Your task to perform on an android device: remove spam from my inbox in the gmail app Image 0: 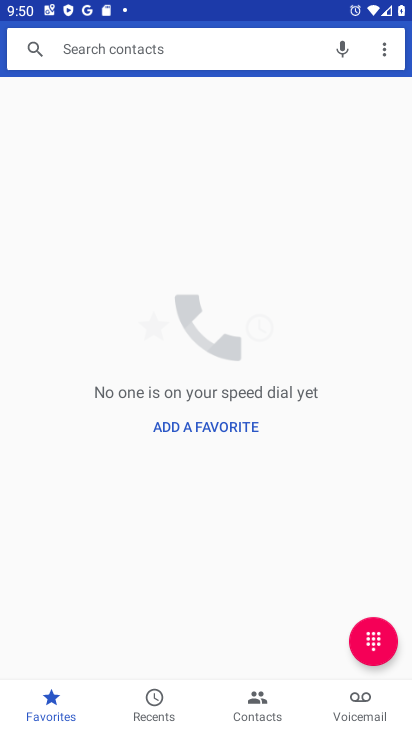
Step 0: press home button
Your task to perform on an android device: remove spam from my inbox in the gmail app Image 1: 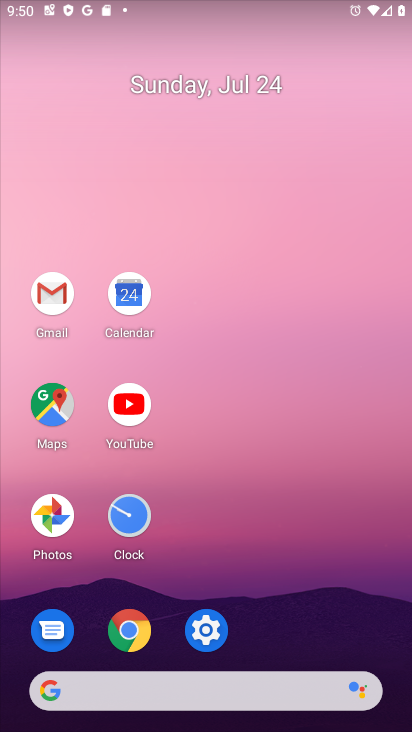
Step 1: click (46, 294)
Your task to perform on an android device: remove spam from my inbox in the gmail app Image 2: 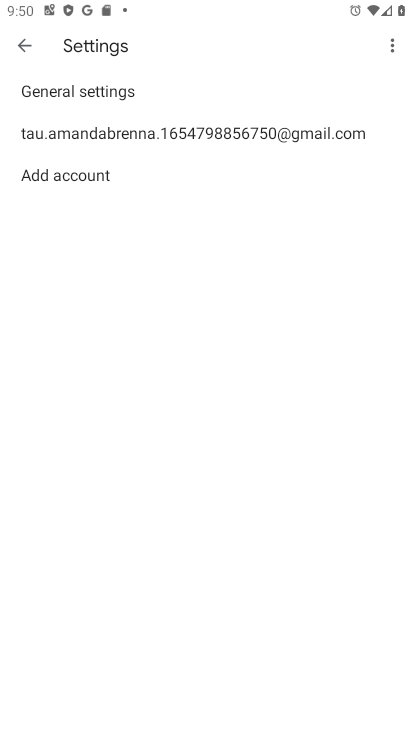
Step 2: click (22, 44)
Your task to perform on an android device: remove spam from my inbox in the gmail app Image 3: 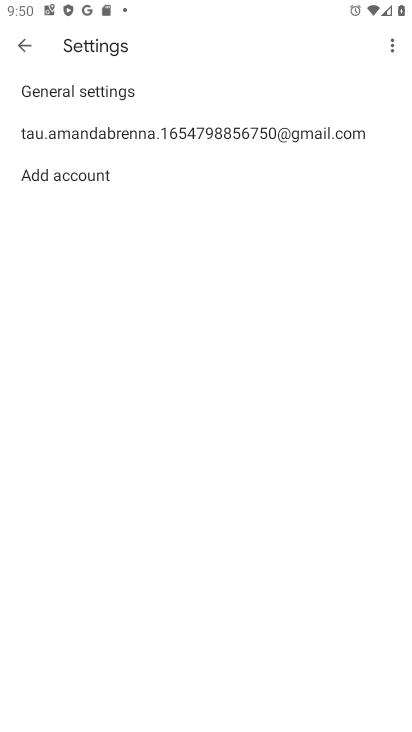
Step 3: click (22, 44)
Your task to perform on an android device: remove spam from my inbox in the gmail app Image 4: 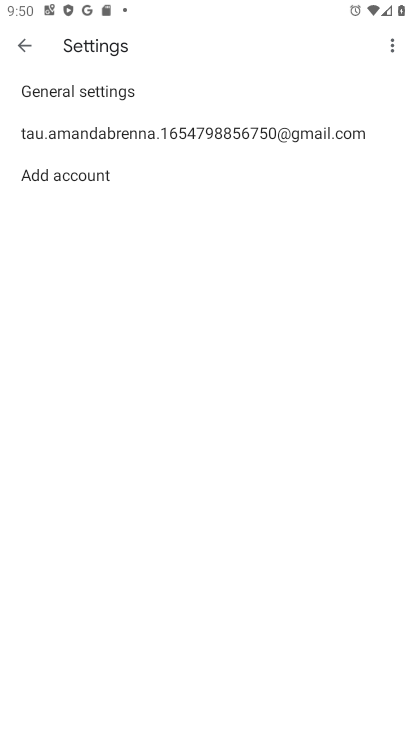
Step 4: click (23, 47)
Your task to perform on an android device: remove spam from my inbox in the gmail app Image 5: 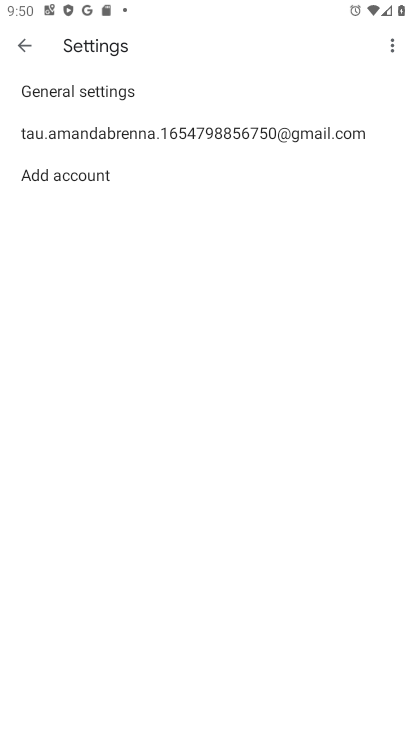
Step 5: click (23, 47)
Your task to perform on an android device: remove spam from my inbox in the gmail app Image 6: 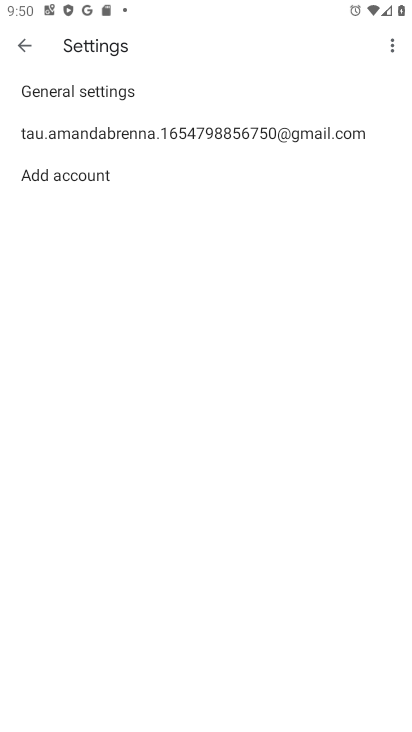
Step 6: click (23, 47)
Your task to perform on an android device: remove spam from my inbox in the gmail app Image 7: 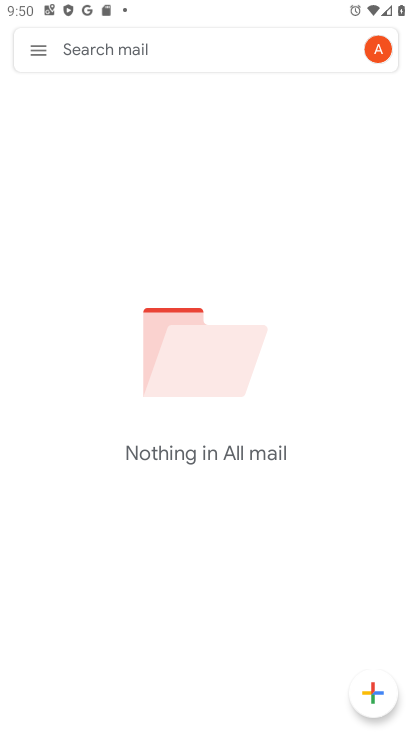
Step 7: click (42, 45)
Your task to perform on an android device: remove spam from my inbox in the gmail app Image 8: 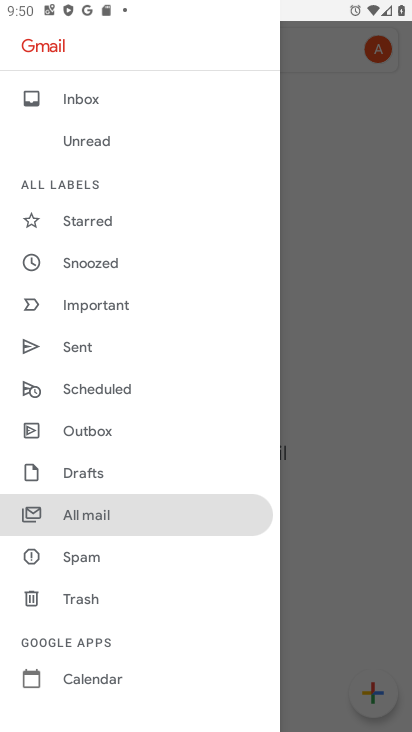
Step 8: click (73, 556)
Your task to perform on an android device: remove spam from my inbox in the gmail app Image 9: 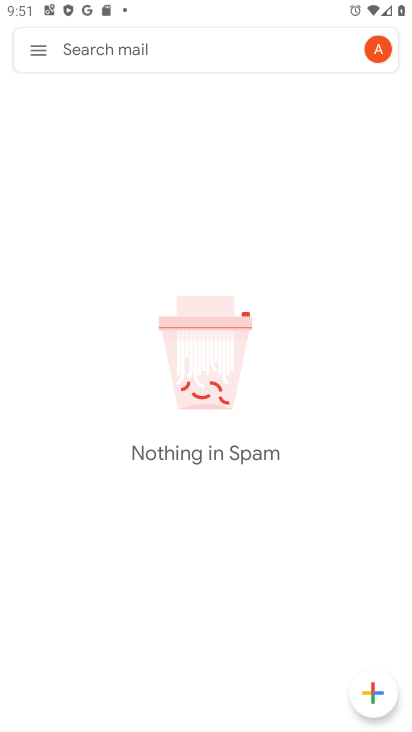
Step 9: task complete